Your task to perform on an android device: Go to calendar. Show me events next week Image 0: 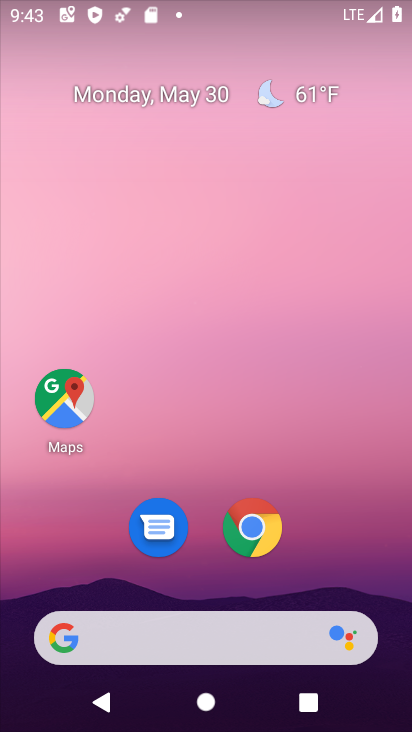
Step 0: drag from (306, 582) to (317, 107)
Your task to perform on an android device: Go to calendar. Show me events next week Image 1: 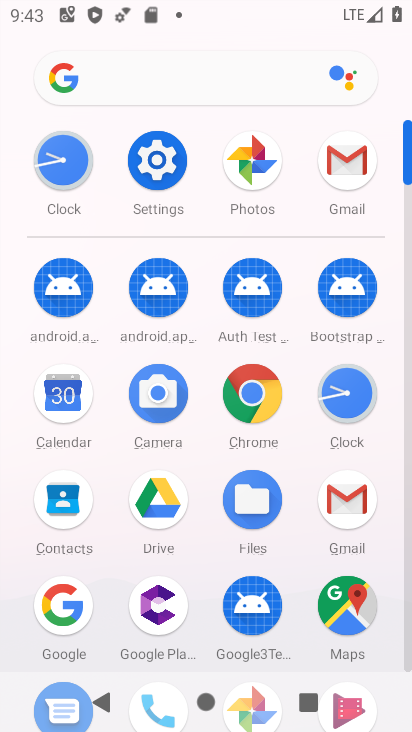
Step 1: click (74, 399)
Your task to perform on an android device: Go to calendar. Show me events next week Image 2: 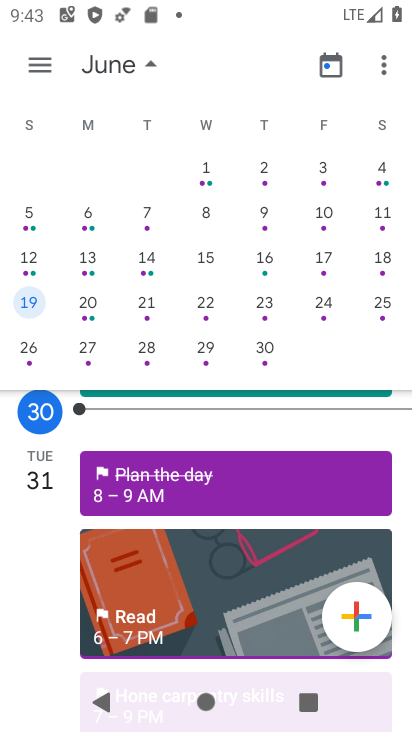
Step 2: click (32, 227)
Your task to perform on an android device: Go to calendar. Show me events next week Image 3: 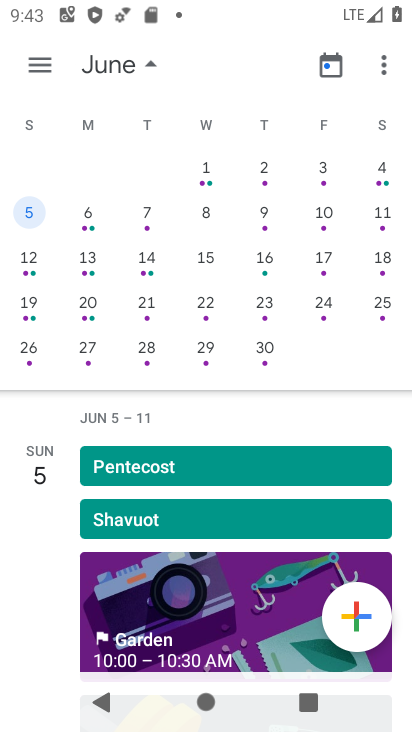
Step 3: task complete